Your task to perform on an android device: turn off sleep mode Image 0: 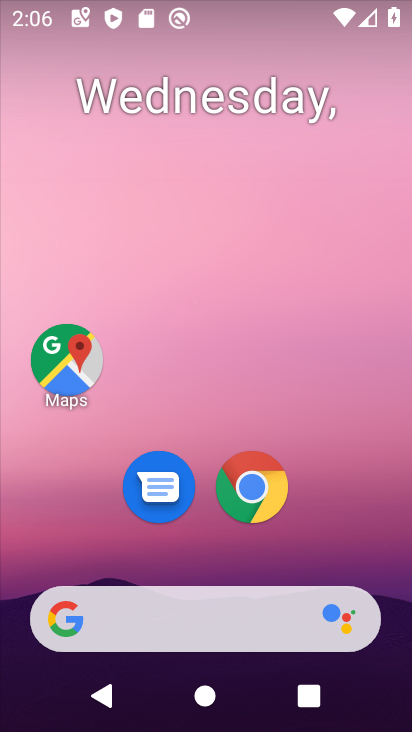
Step 0: drag from (347, 522) to (253, 187)
Your task to perform on an android device: turn off sleep mode Image 1: 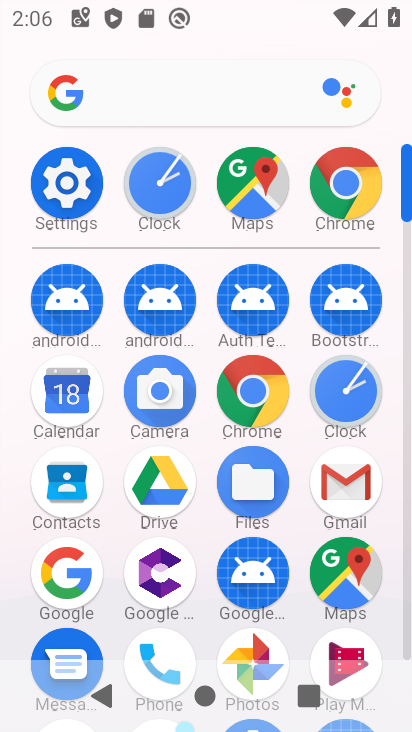
Step 1: click (72, 176)
Your task to perform on an android device: turn off sleep mode Image 2: 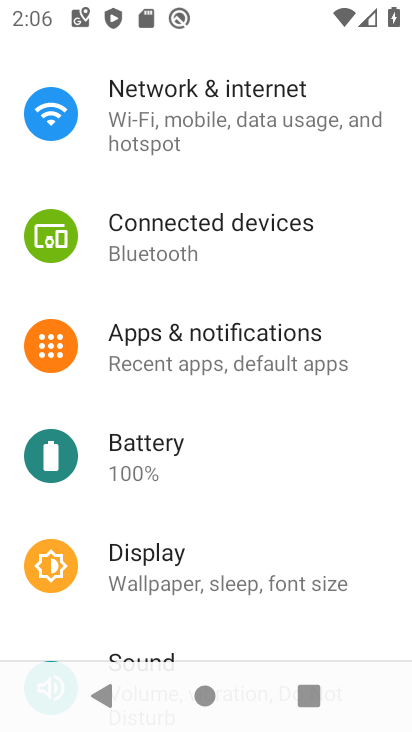
Step 2: click (145, 582)
Your task to perform on an android device: turn off sleep mode Image 3: 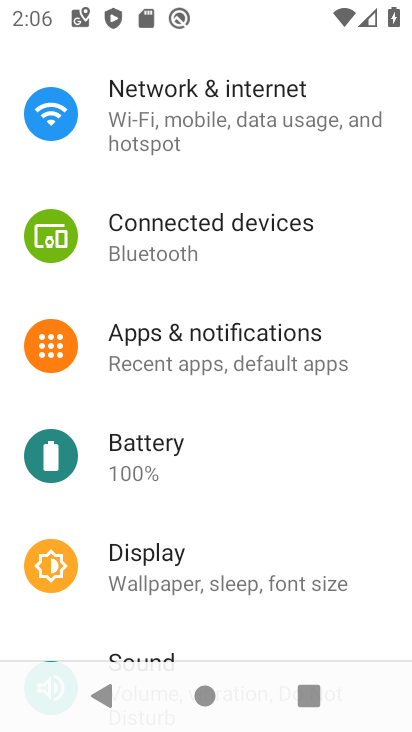
Step 3: click (145, 582)
Your task to perform on an android device: turn off sleep mode Image 4: 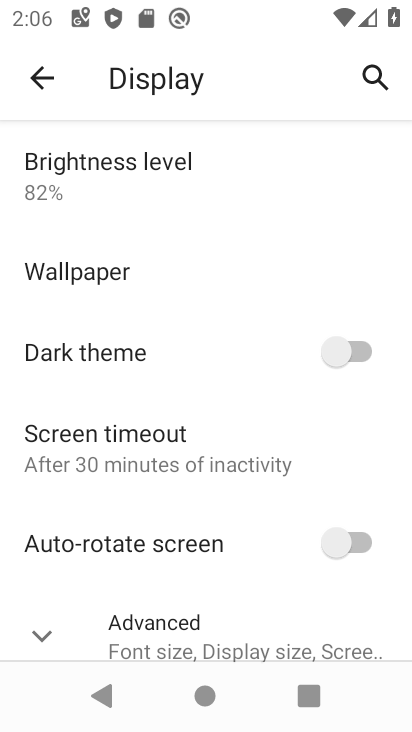
Step 4: task complete